Your task to perform on an android device: Go to Yahoo.com Image 0: 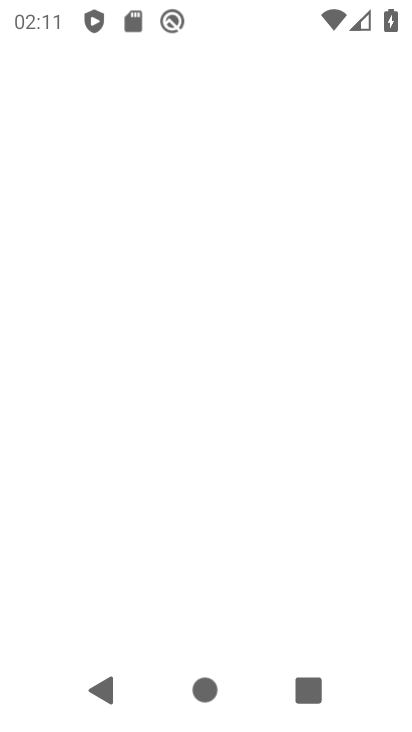
Step 0: drag from (318, 520) to (315, 292)
Your task to perform on an android device: Go to Yahoo.com Image 1: 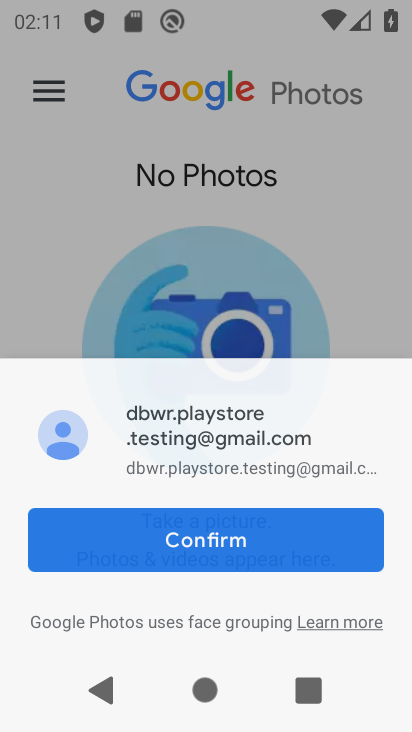
Step 1: press home button
Your task to perform on an android device: Go to Yahoo.com Image 2: 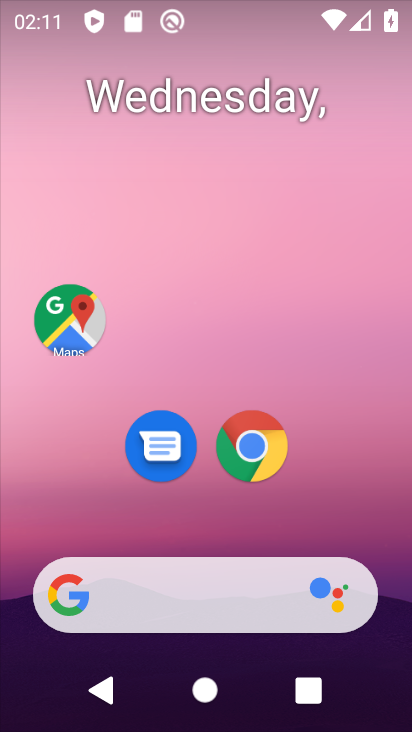
Step 2: click (268, 433)
Your task to perform on an android device: Go to Yahoo.com Image 3: 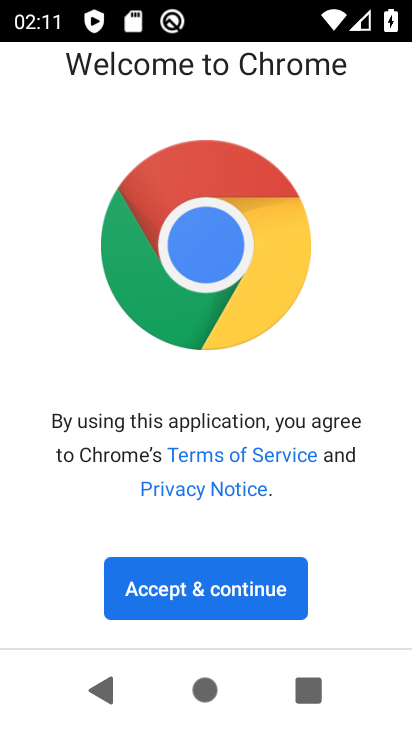
Step 3: click (212, 592)
Your task to perform on an android device: Go to Yahoo.com Image 4: 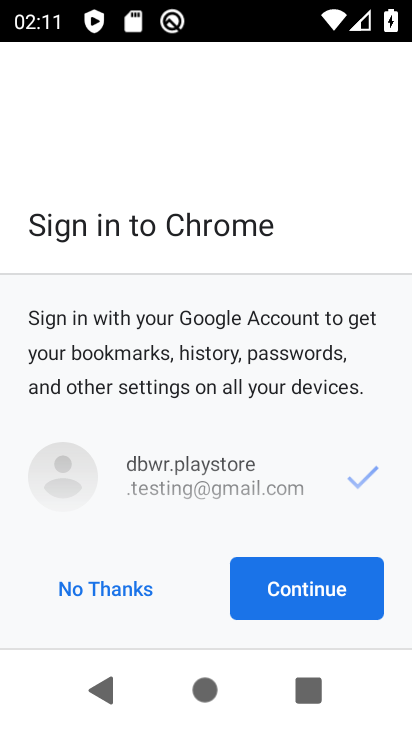
Step 4: click (262, 594)
Your task to perform on an android device: Go to Yahoo.com Image 5: 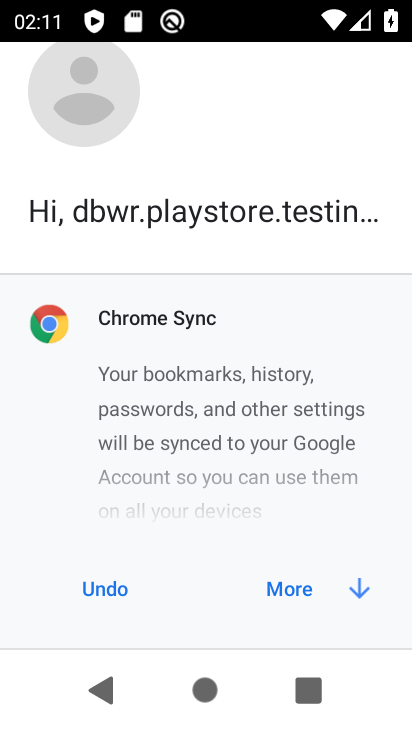
Step 5: click (262, 594)
Your task to perform on an android device: Go to Yahoo.com Image 6: 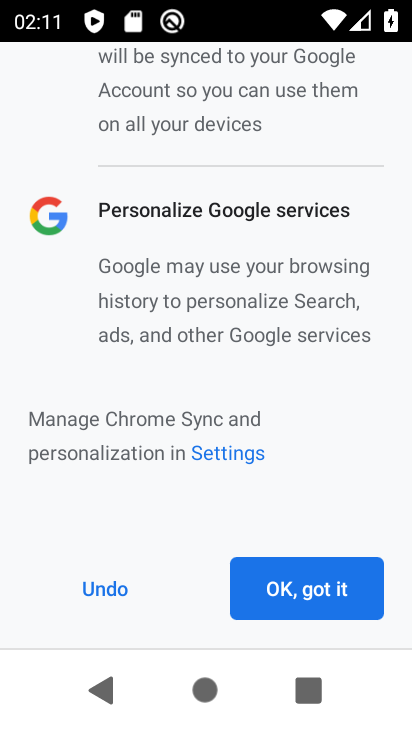
Step 6: click (281, 594)
Your task to perform on an android device: Go to Yahoo.com Image 7: 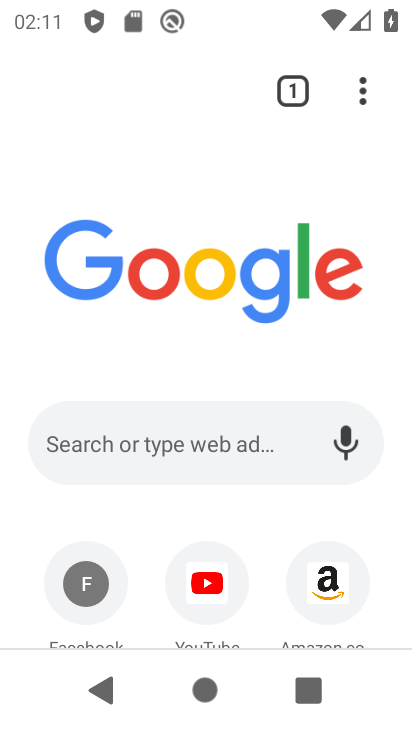
Step 7: drag from (267, 641) to (248, 353)
Your task to perform on an android device: Go to Yahoo.com Image 8: 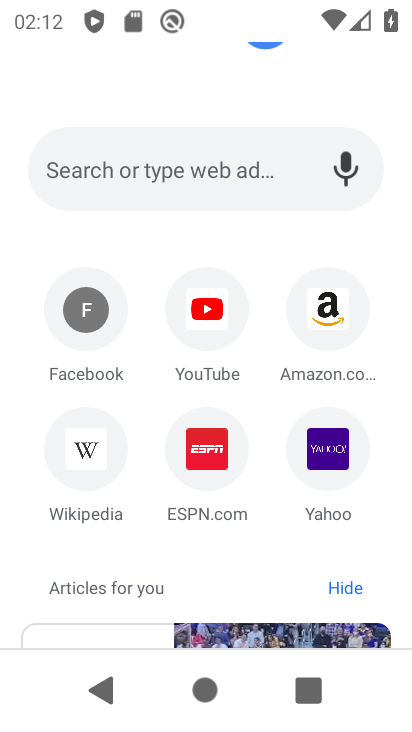
Step 8: click (316, 456)
Your task to perform on an android device: Go to Yahoo.com Image 9: 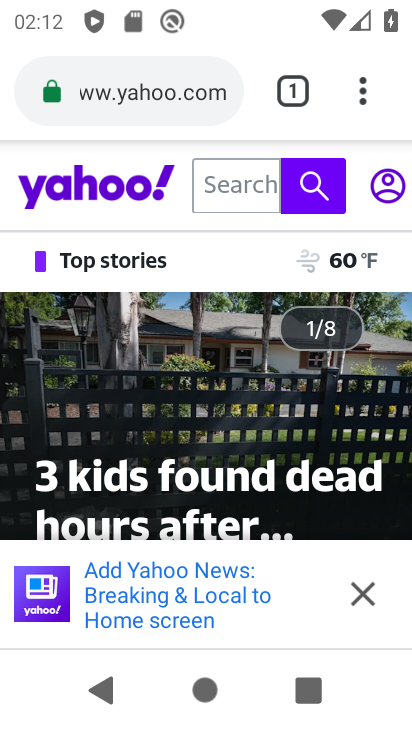
Step 9: task complete